Your task to perform on an android device: turn pop-ups off in chrome Image 0: 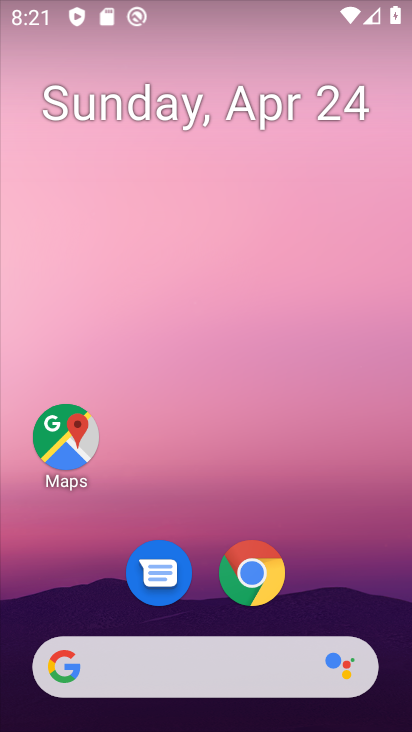
Step 0: click (246, 575)
Your task to perform on an android device: turn pop-ups off in chrome Image 1: 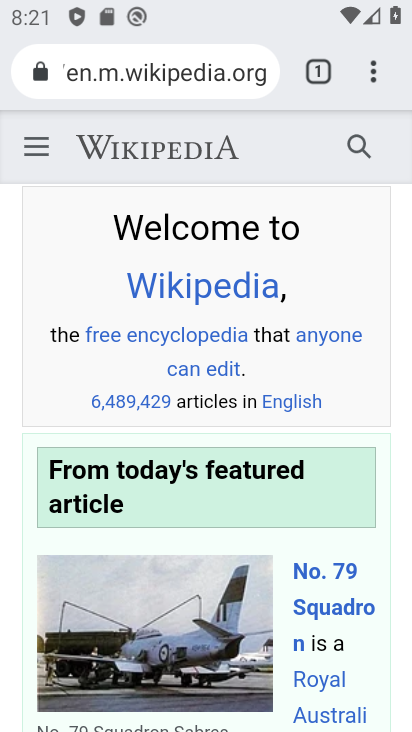
Step 1: click (374, 68)
Your task to perform on an android device: turn pop-ups off in chrome Image 2: 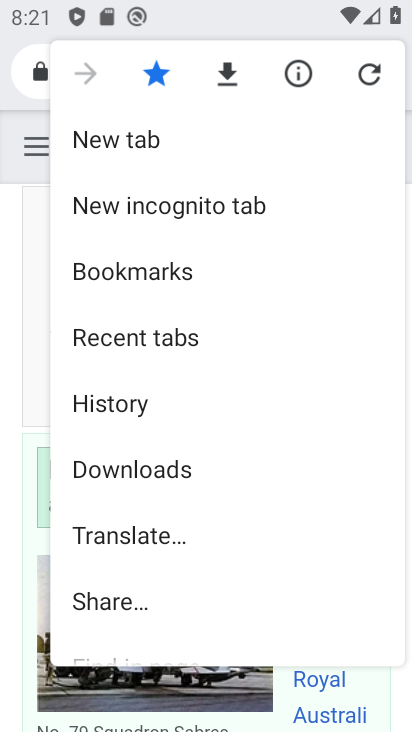
Step 2: drag from (257, 569) to (205, 115)
Your task to perform on an android device: turn pop-ups off in chrome Image 3: 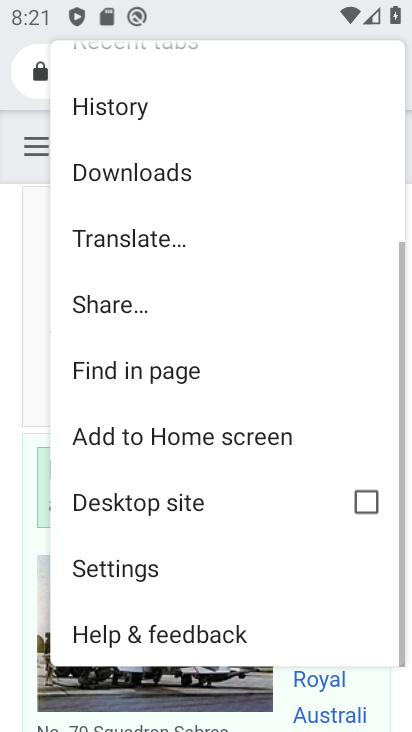
Step 3: click (115, 565)
Your task to perform on an android device: turn pop-ups off in chrome Image 4: 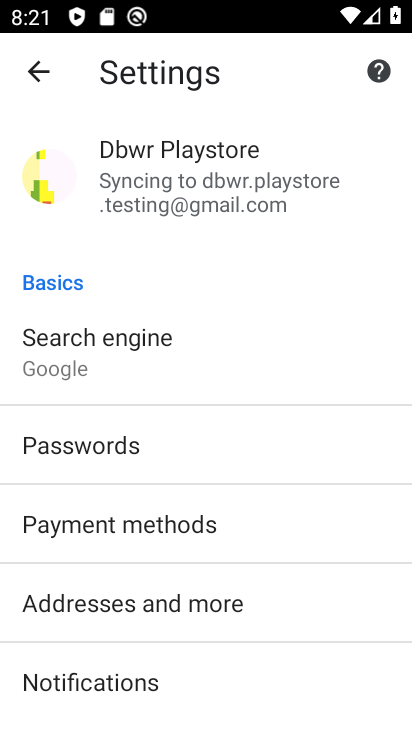
Step 4: click (167, 91)
Your task to perform on an android device: turn pop-ups off in chrome Image 5: 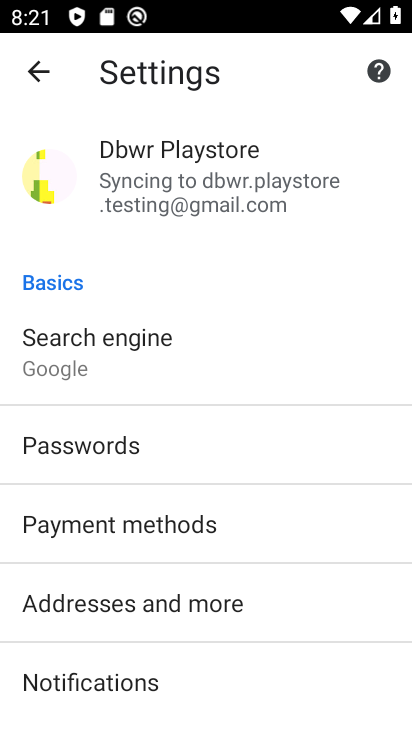
Step 5: drag from (149, 631) to (19, 61)
Your task to perform on an android device: turn pop-ups off in chrome Image 6: 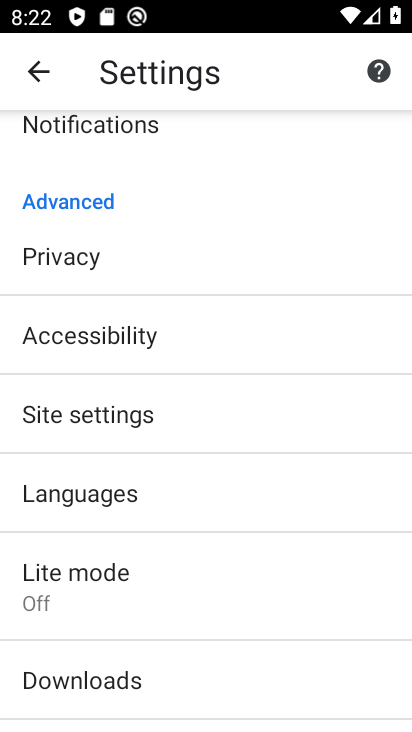
Step 6: drag from (149, 467) to (137, 150)
Your task to perform on an android device: turn pop-ups off in chrome Image 7: 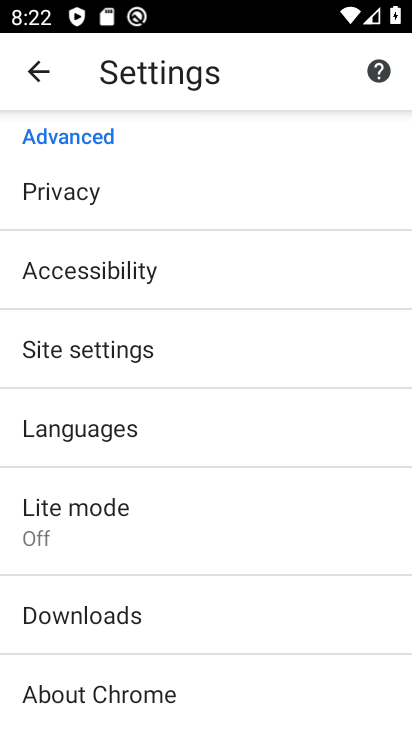
Step 7: click (52, 340)
Your task to perform on an android device: turn pop-ups off in chrome Image 8: 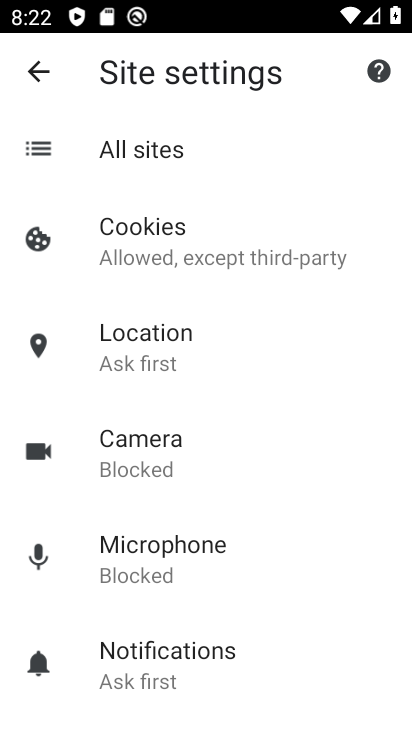
Step 8: drag from (248, 590) to (258, 220)
Your task to perform on an android device: turn pop-ups off in chrome Image 9: 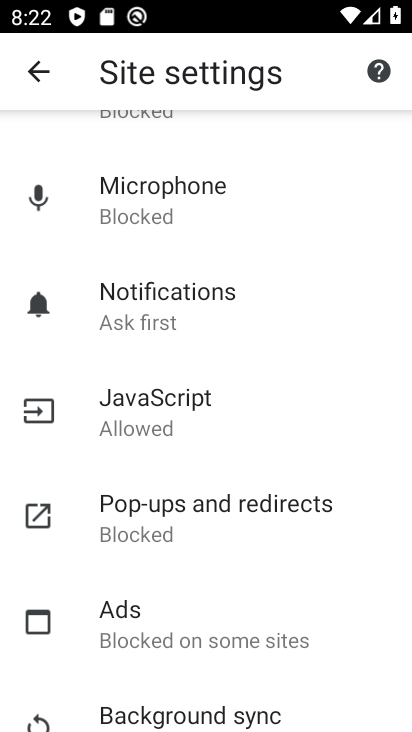
Step 9: click (169, 510)
Your task to perform on an android device: turn pop-ups off in chrome Image 10: 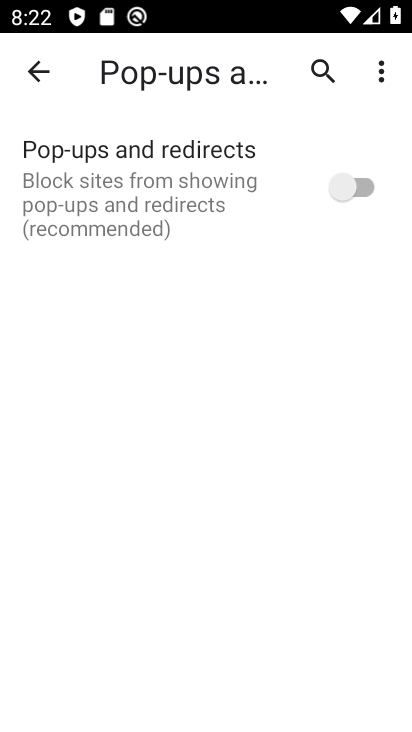
Step 10: task complete